Your task to perform on an android device: toggle show notifications on the lock screen Image 0: 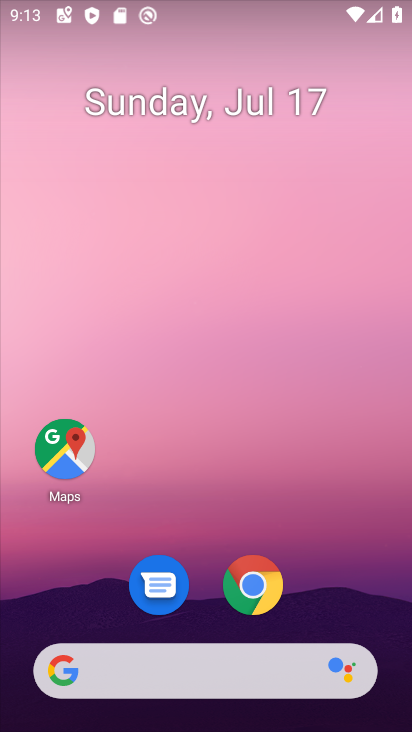
Step 0: drag from (327, 581) to (308, 0)
Your task to perform on an android device: toggle show notifications on the lock screen Image 1: 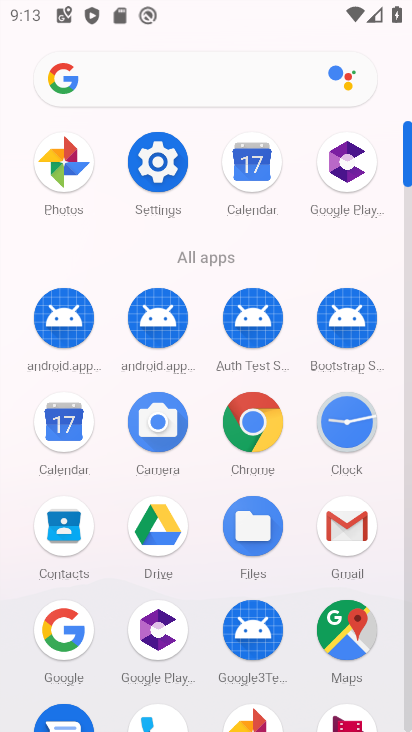
Step 1: click (179, 162)
Your task to perform on an android device: toggle show notifications on the lock screen Image 2: 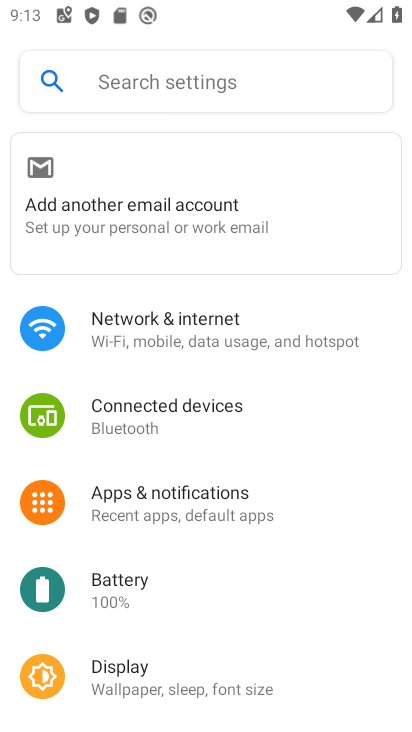
Step 2: click (202, 502)
Your task to perform on an android device: toggle show notifications on the lock screen Image 3: 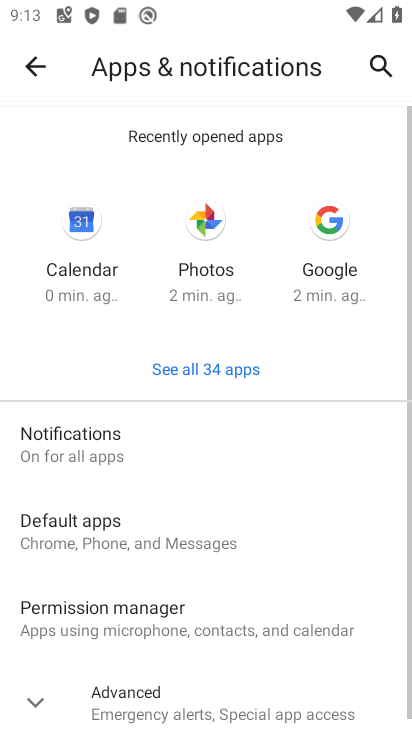
Step 3: drag from (265, 564) to (284, 200)
Your task to perform on an android device: toggle show notifications on the lock screen Image 4: 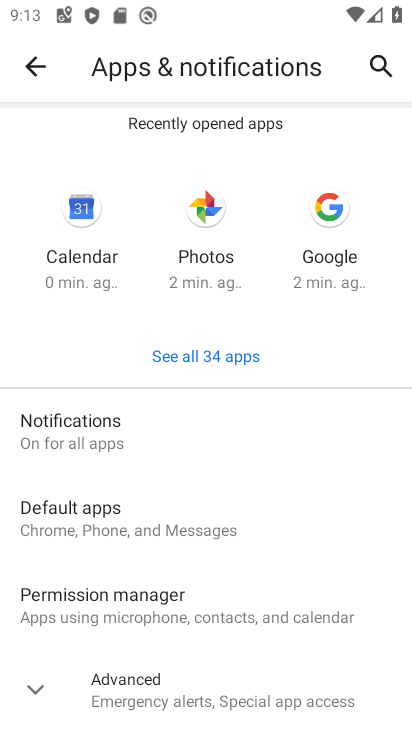
Step 4: click (76, 428)
Your task to perform on an android device: toggle show notifications on the lock screen Image 5: 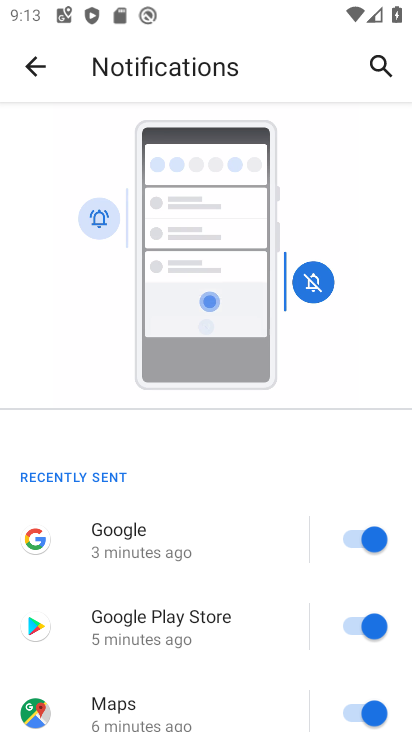
Step 5: drag from (254, 632) to (240, 164)
Your task to perform on an android device: toggle show notifications on the lock screen Image 6: 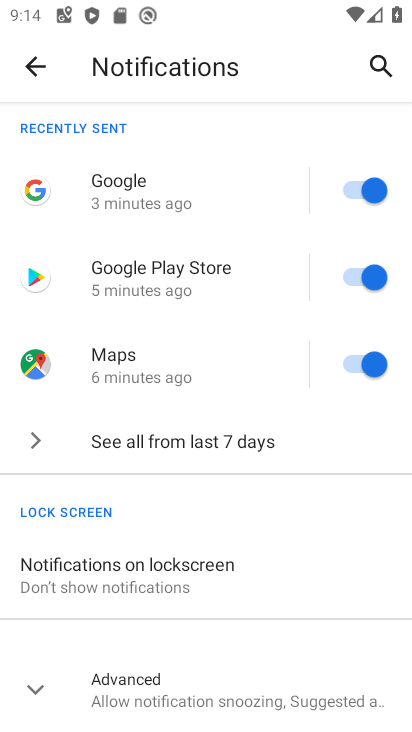
Step 6: click (142, 575)
Your task to perform on an android device: toggle show notifications on the lock screen Image 7: 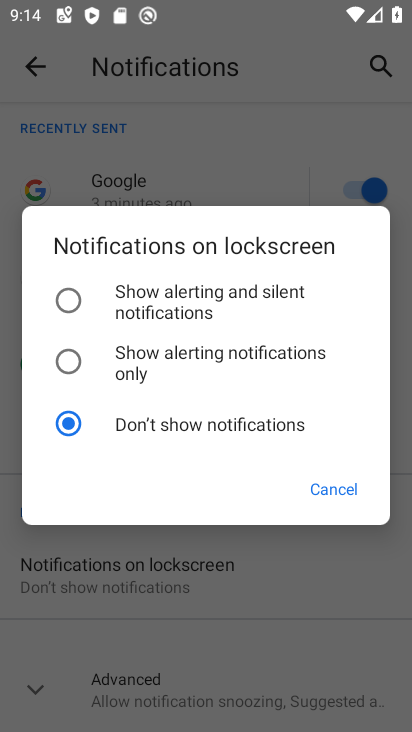
Step 7: click (70, 299)
Your task to perform on an android device: toggle show notifications on the lock screen Image 8: 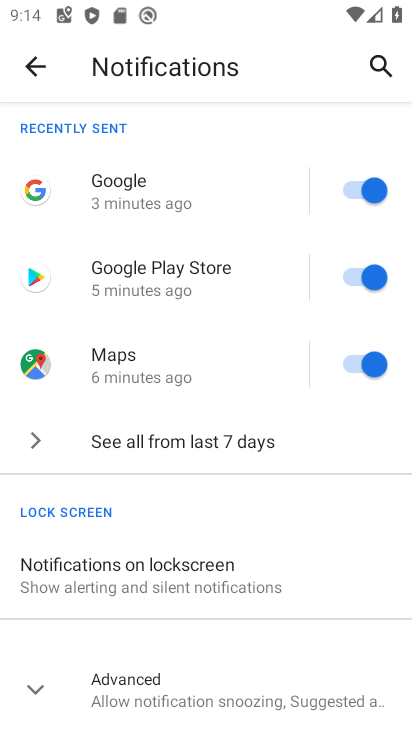
Step 8: task complete